Your task to perform on an android device: turn on sleep mode Image 0: 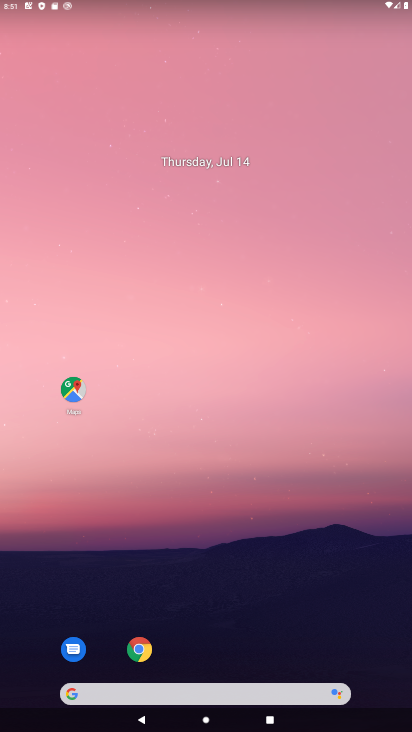
Step 0: click (266, 166)
Your task to perform on an android device: turn on sleep mode Image 1: 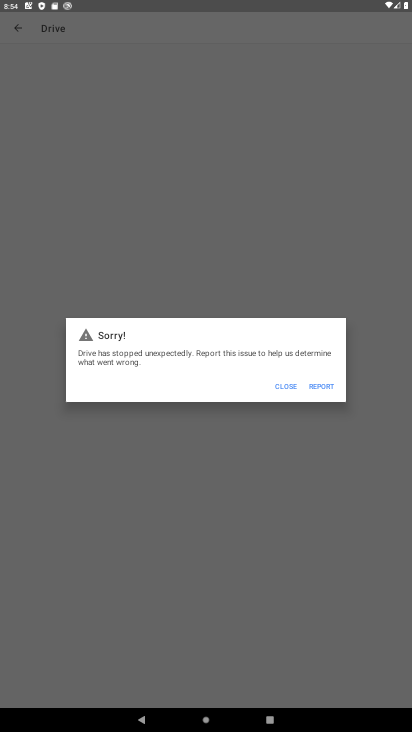
Step 1: press home button
Your task to perform on an android device: turn on sleep mode Image 2: 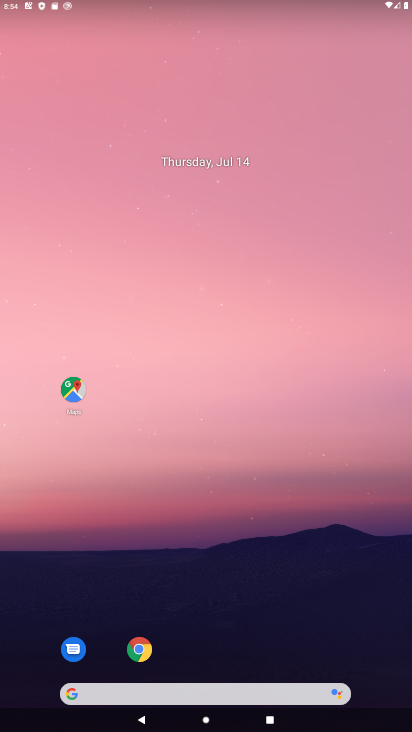
Step 2: drag from (178, 691) to (301, 28)
Your task to perform on an android device: turn on sleep mode Image 3: 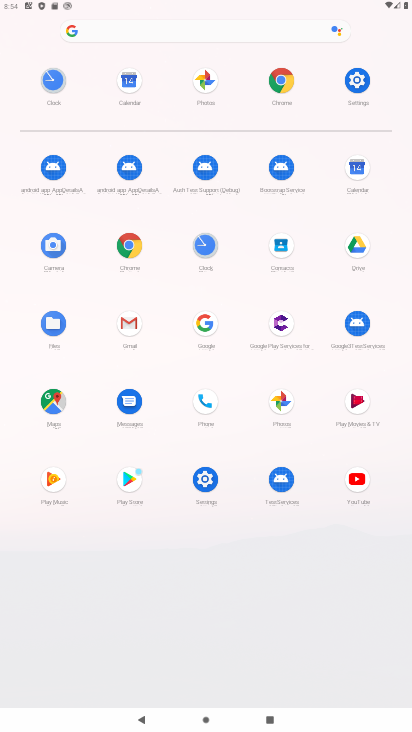
Step 3: click (368, 83)
Your task to perform on an android device: turn on sleep mode Image 4: 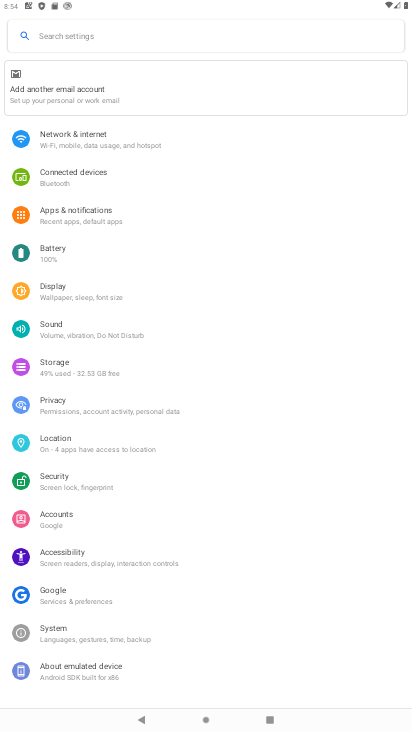
Step 4: click (113, 293)
Your task to perform on an android device: turn on sleep mode Image 5: 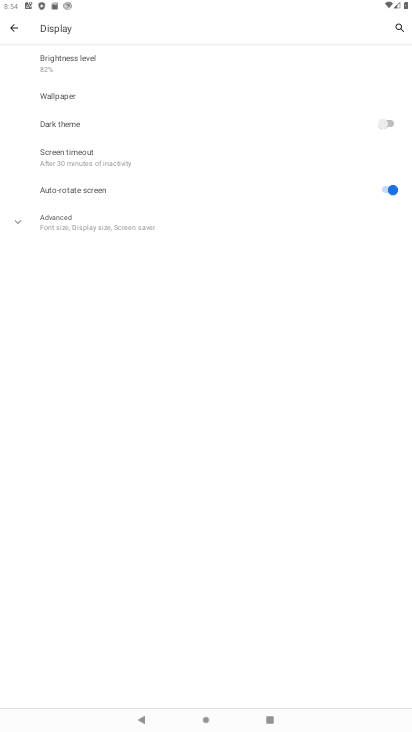
Step 5: task complete